Your task to perform on an android device: change text size in settings app Image 0: 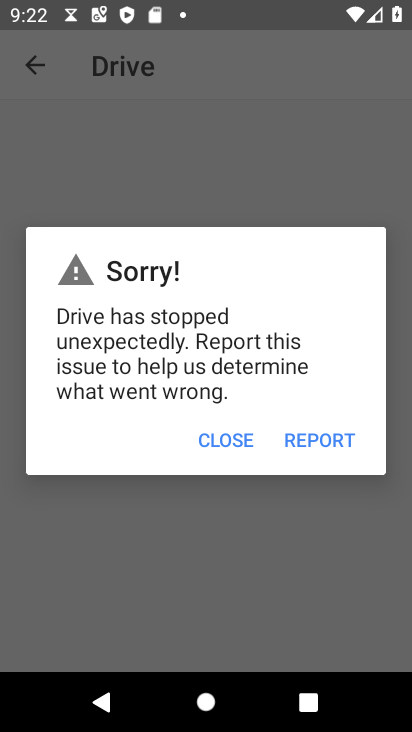
Step 0: press home button
Your task to perform on an android device: change text size in settings app Image 1: 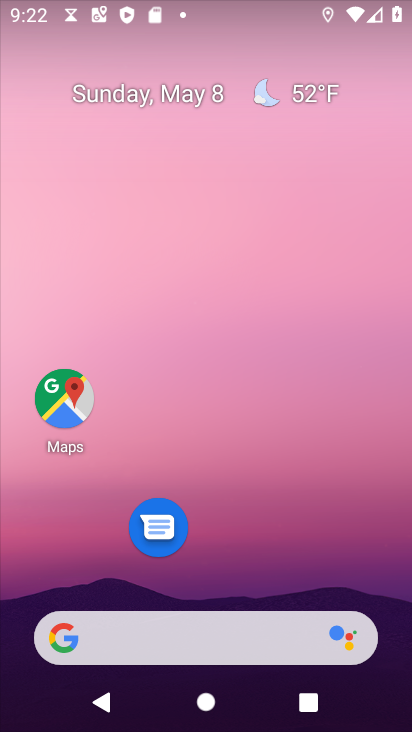
Step 1: drag from (274, 557) to (227, 66)
Your task to perform on an android device: change text size in settings app Image 2: 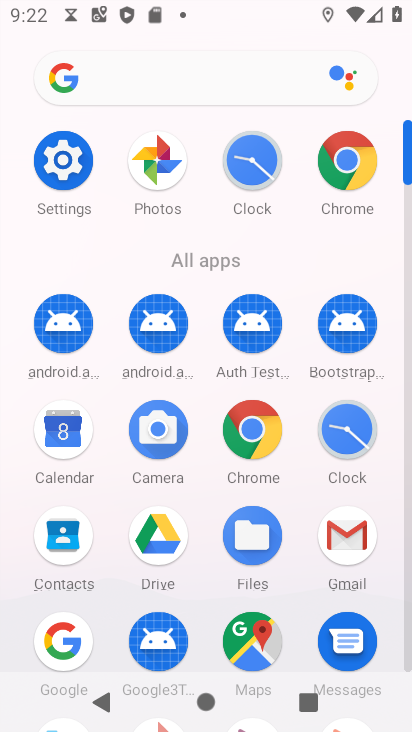
Step 2: click (65, 162)
Your task to perform on an android device: change text size in settings app Image 3: 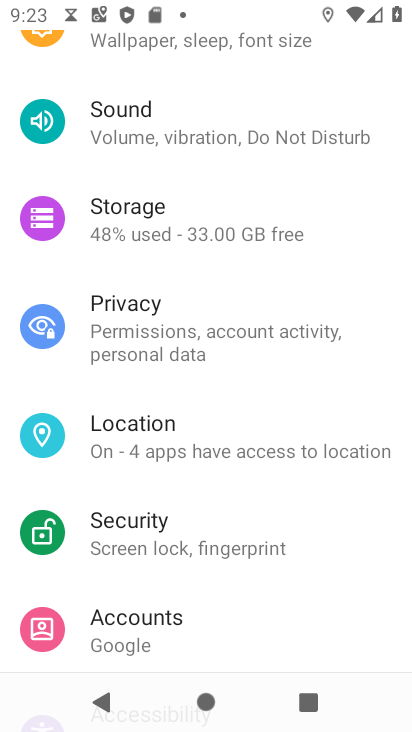
Step 3: drag from (242, 507) to (202, 359)
Your task to perform on an android device: change text size in settings app Image 4: 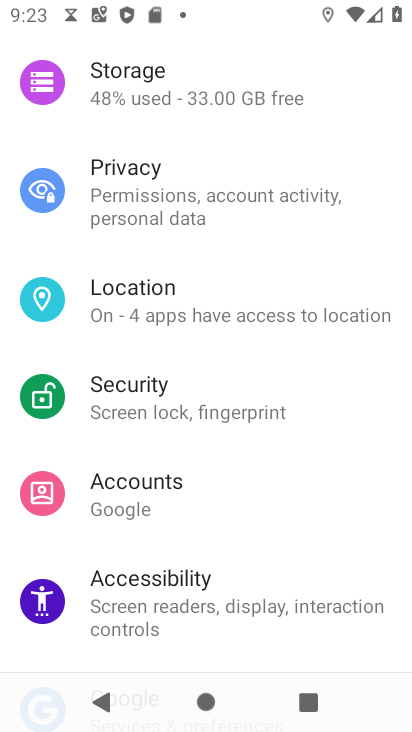
Step 4: drag from (187, 511) to (211, 397)
Your task to perform on an android device: change text size in settings app Image 5: 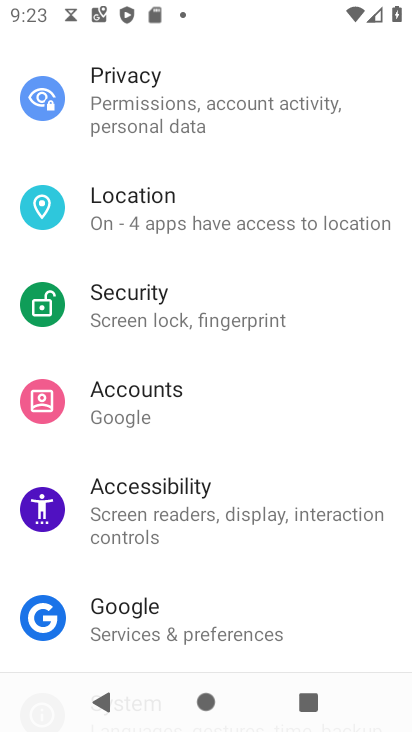
Step 5: drag from (207, 534) to (209, 398)
Your task to perform on an android device: change text size in settings app Image 6: 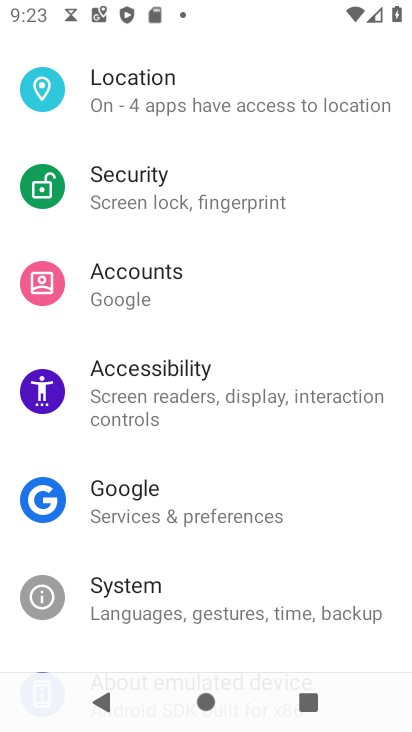
Step 6: click (174, 364)
Your task to perform on an android device: change text size in settings app Image 7: 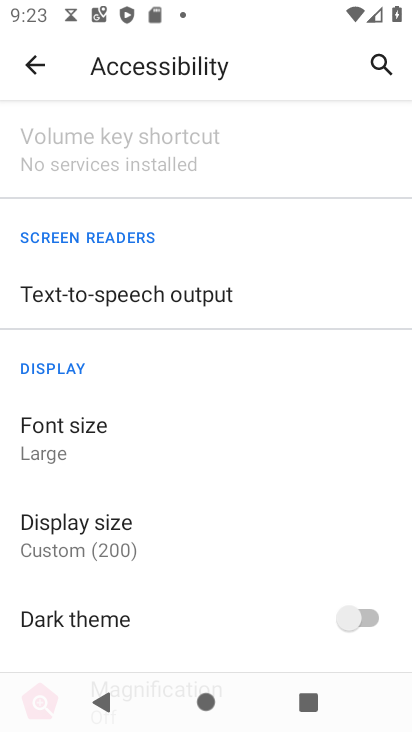
Step 7: click (101, 424)
Your task to perform on an android device: change text size in settings app Image 8: 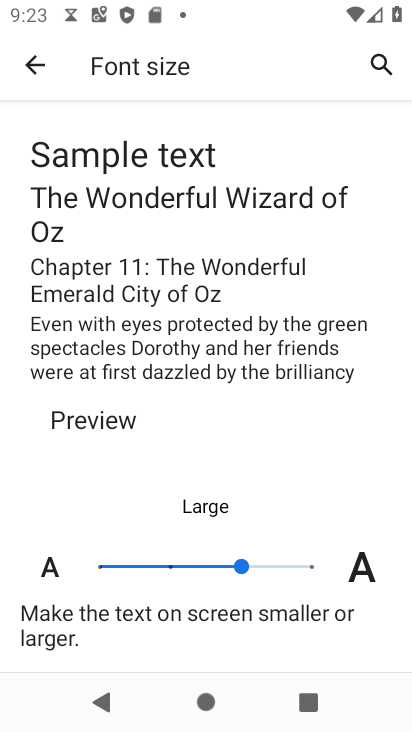
Step 8: click (174, 565)
Your task to perform on an android device: change text size in settings app Image 9: 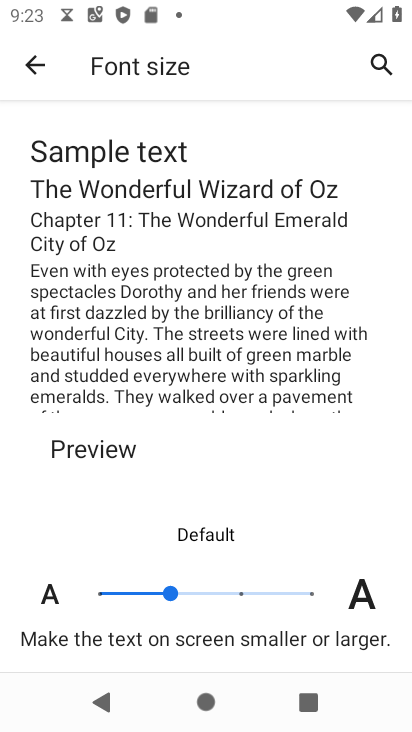
Step 9: task complete